Your task to perform on an android device: change your default location settings in chrome Image 0: 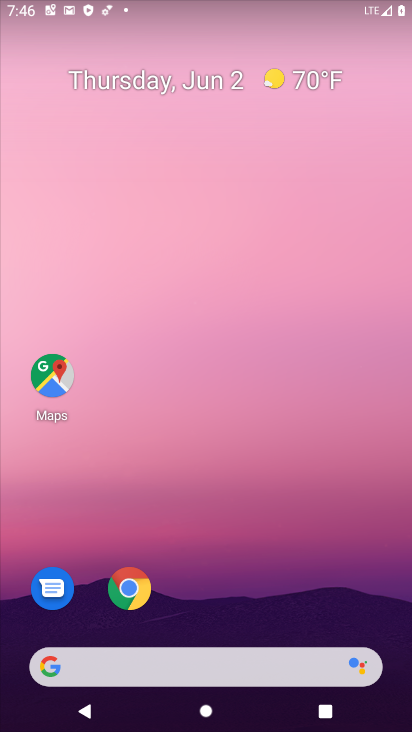
Step 0: click (139, 584)
Your task to perform on an android device: change your default location settings in chrome Image 1: 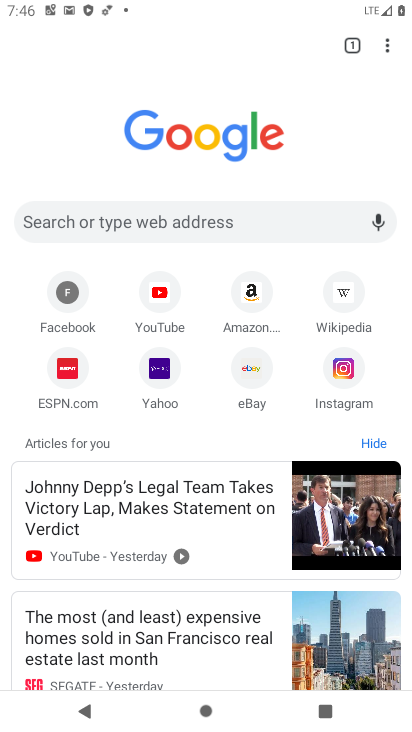
Step 1: click (382, 47)
Your task to perform on an android device: change your default location settings in chrome Image 2: 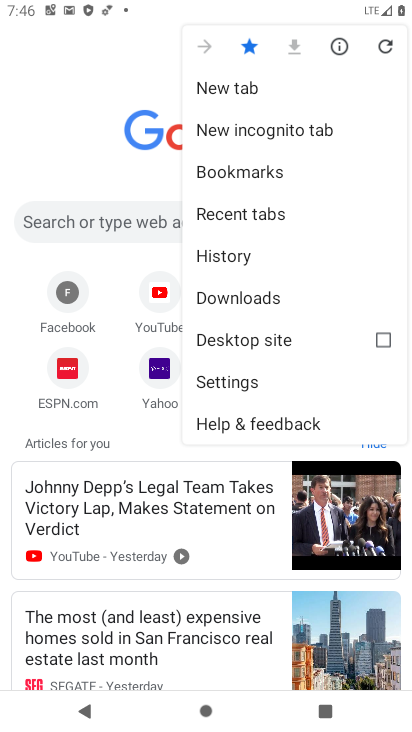
Step 2: click (230, 382)
Your task to perform on an android device: change your default location settings in chrome Image 3: 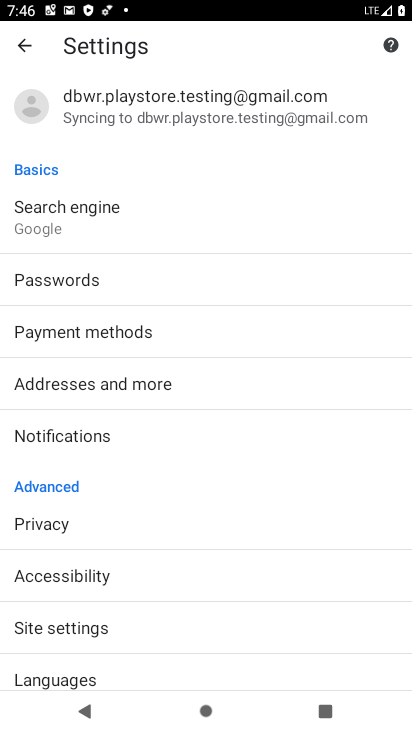
Step 3: click (39, 629)
Your task to perform on an android device: change your default location settings in chrome Image 4: 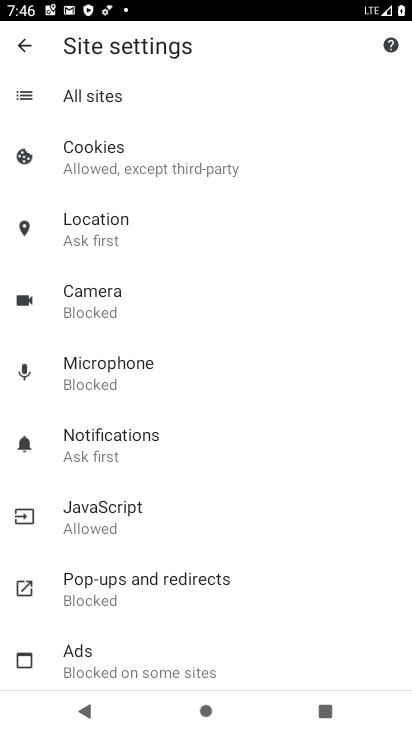
Step 4: click (117, 230)
Your task to perform on an android device: change your default location settings in chrome Image 5: 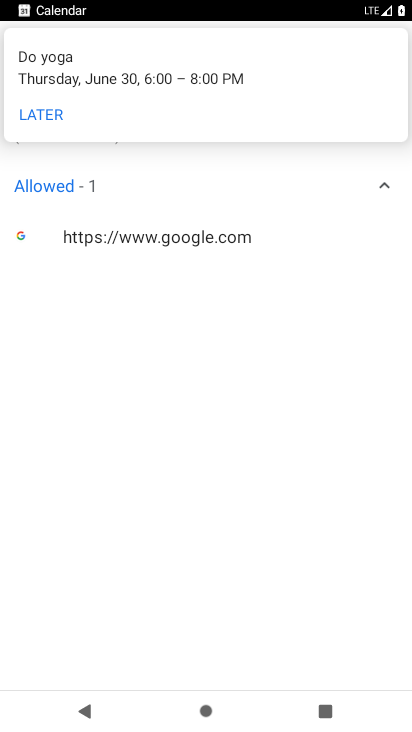
Step 5: click (261, 152)
Your task to perform on an android device: change your default location settings in chrome Image 6: 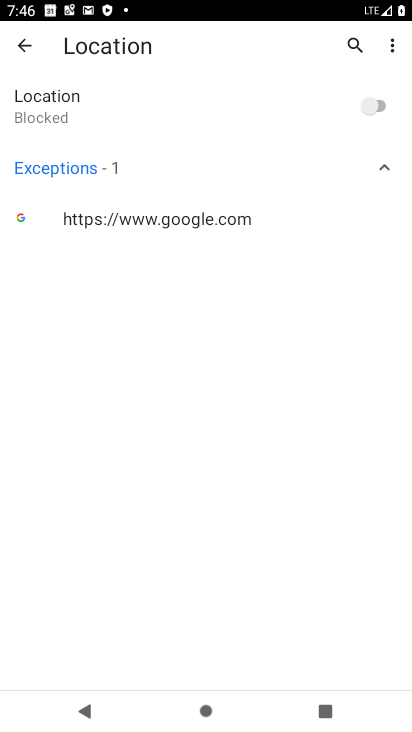
Step 6: task complete